Your task to perform on an android device: Open the Play Movies app and select the watchlist tab. Image 0: 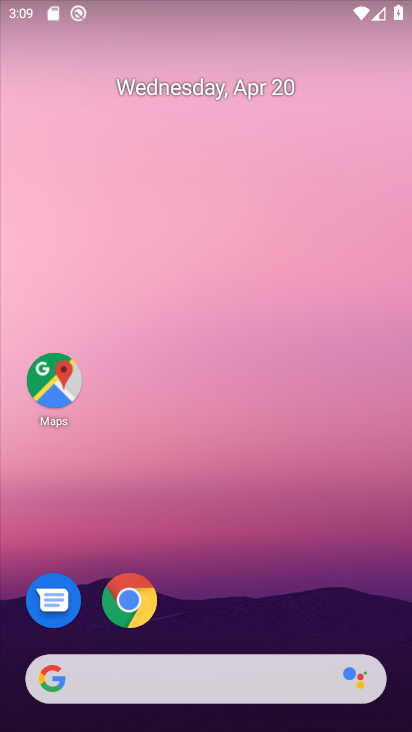
Step 0: drag from (291, 573) to (274, 249)
Your task to perform on an android device: Open the Play Movies app and select the watchlist tab. Image 1: 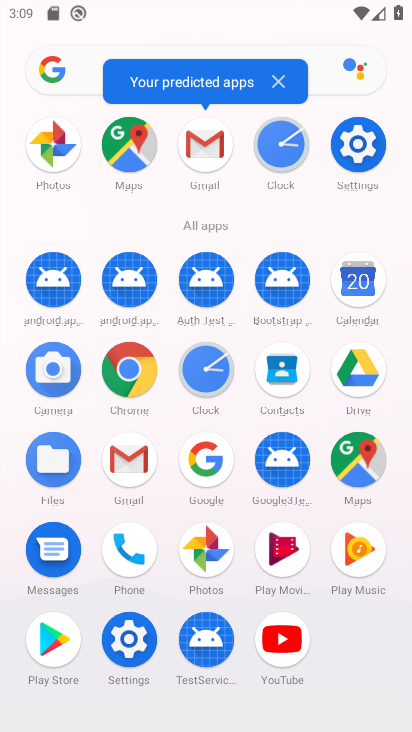
Step 1: click (276, 541)
Your task to perform on an android device: Open the Play Movies app and select the watchlist tab. Image 2: 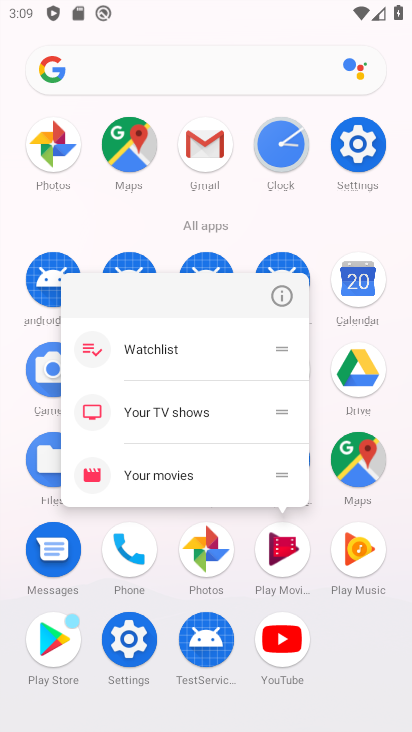
Step 2: click (288, 548)
Your task to perform on an android device: Open the Play Movies app and select the watchlist tab. Image 3: 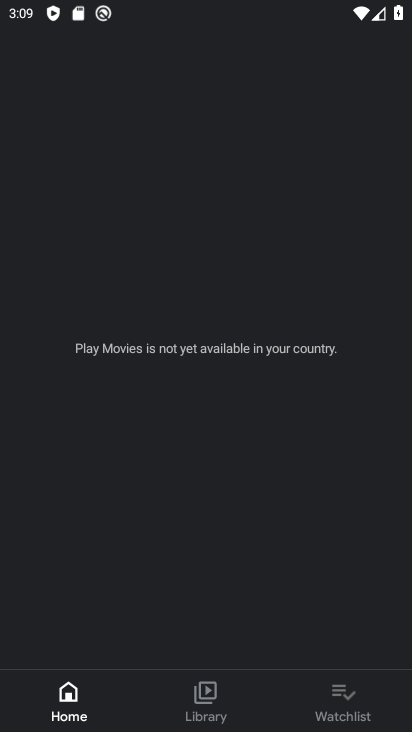
Step 3: click (345, 686)
Your task to perform on an android device: Open the Play Movies app and select the watchlist tab. Image 4: 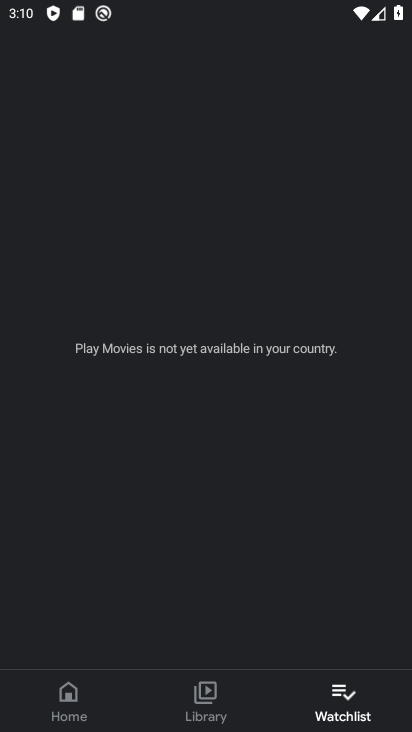
Step 4: task complete